Your task to perform on an android device: Show me productivity apps on the Play Store Image 0: 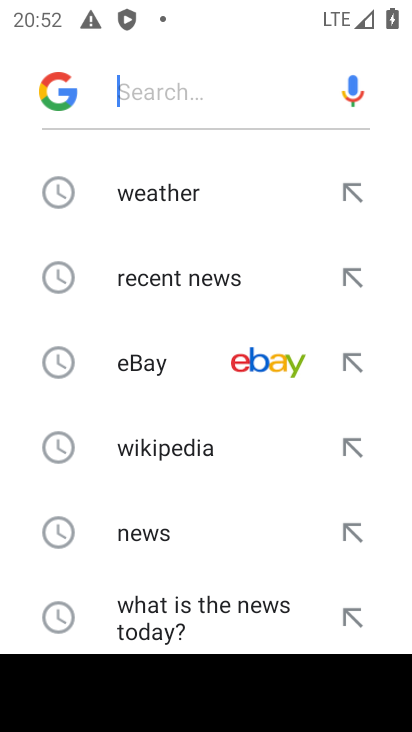
Step 0: press back button
Your task to perform on an android device: Show me productivity apps on the Play Store Image 1: 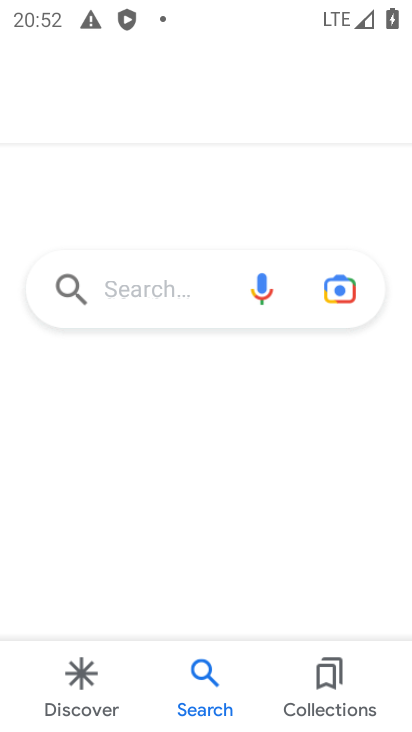
Step 1: press back button
Your task to perform on an android device: Show me productivity apps on the Play Store Image 2: 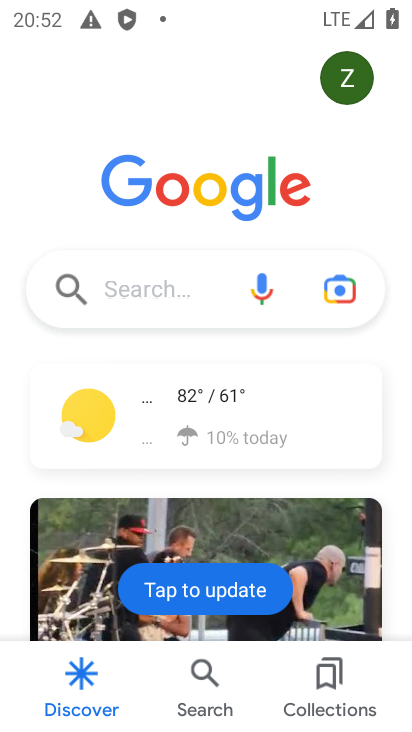
Step 2: press home button
Your task to perform on an android device: Show me productivity apps on the Play Store Image 3: 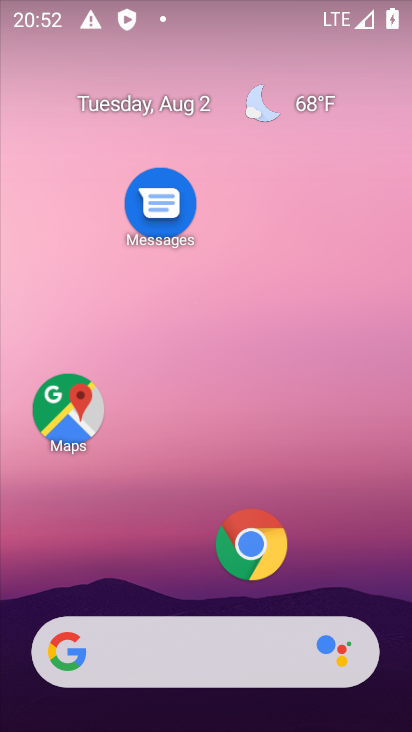
Step 3: drag from (175, 563) to (215, 120)
Your task to perform on an android device: Show me productivity apps on the Play Store Image 4: 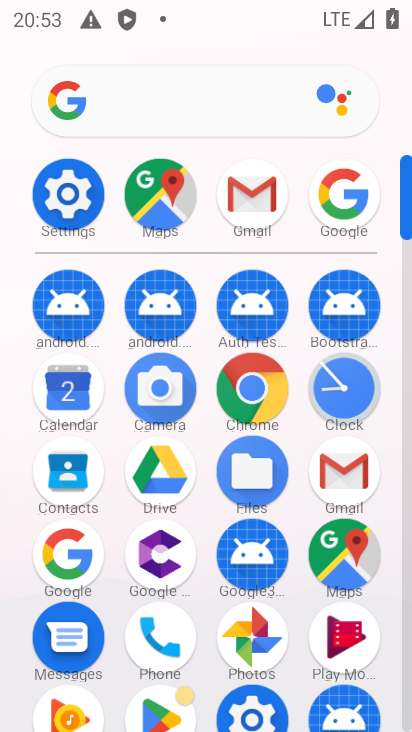
Step 4: drag from (129, 637) to (153, 375)
Your task to perform on an android device: Show me productivity apps on the Play Store Image 5: 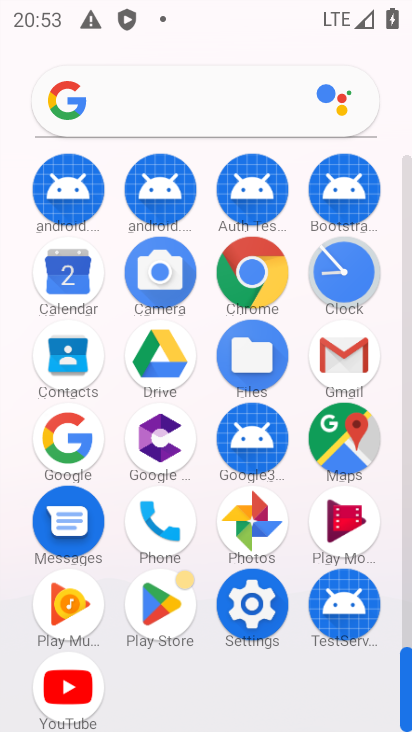
Step 5: click (157, 614)
Your task to perform on an android device: Show me productivity apps on the Play Store Image 6: 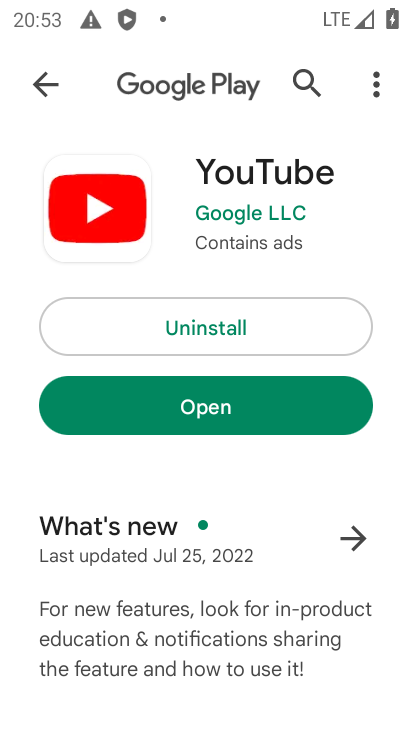
Step 6: click (48, 78)
Your task to perform on an android device: Show me productivity apps on the Play Store Image 7: 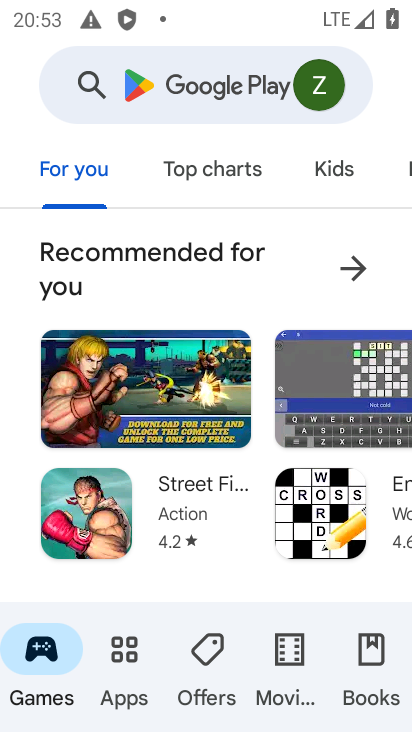
Step 7: click (114, 662)
Your task to perform on an android device: Show me productivity apps on the Play Store Image 8: 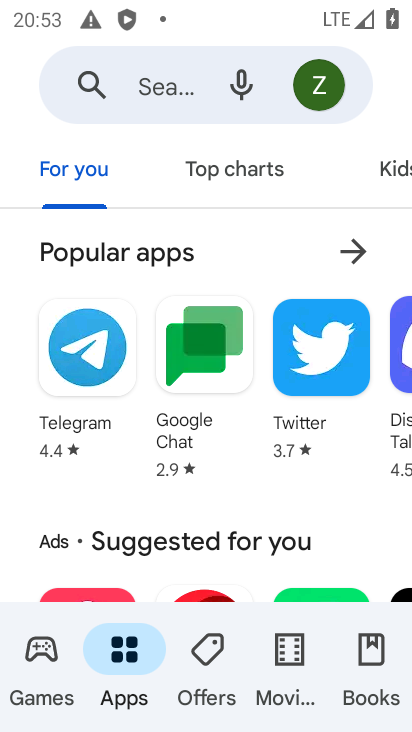
Step 8: drag from (341, 167) to (82, 159)
Your task to perform on an android device: Show me productivity apps on the Play Store Image 9: 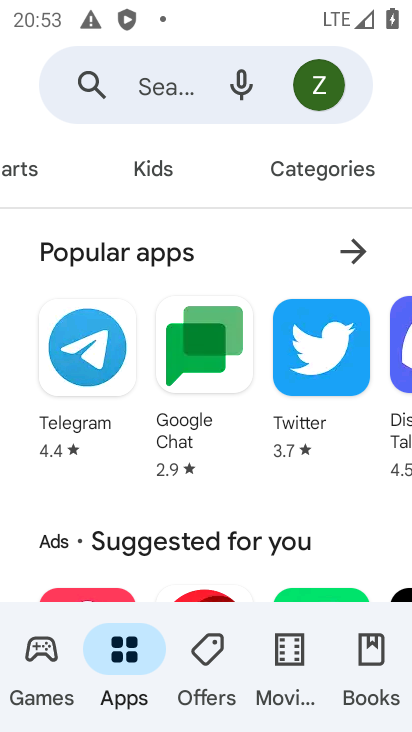
Step 9: click (320, 166)
Your task to perform on an android device: Show me productivity apps on the Play Store Image 10: 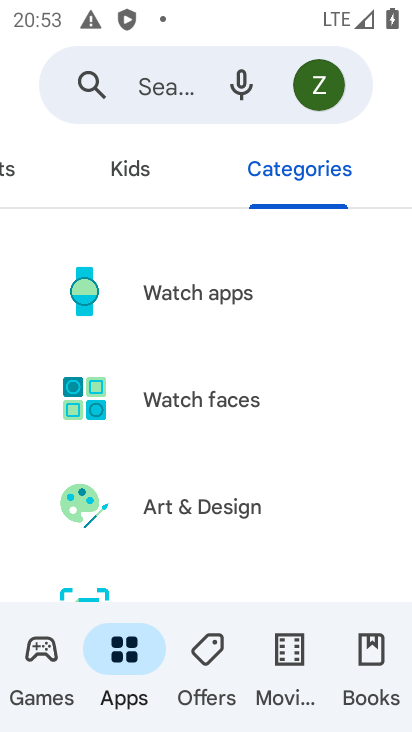
Step 10: drag from (209, 506) to (227, 331)
Your task to perform on an android device: Show me productivity apps on the Play Store Image 11: 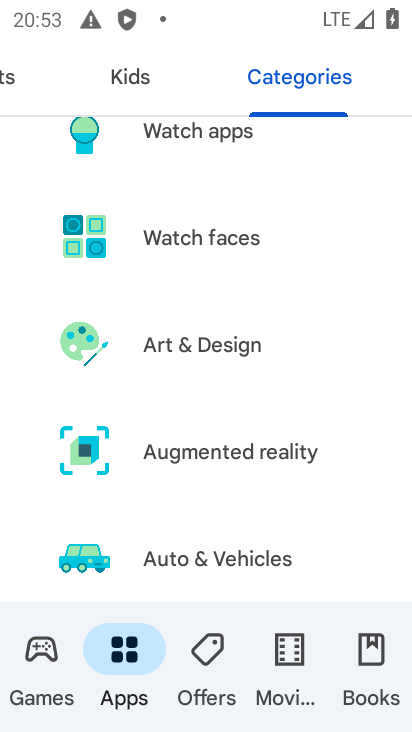
Step 11: drag from (251, 527) to (289, 161)
Your task to perform on an android device: Show me productivity apps on the Play Store Image 12: 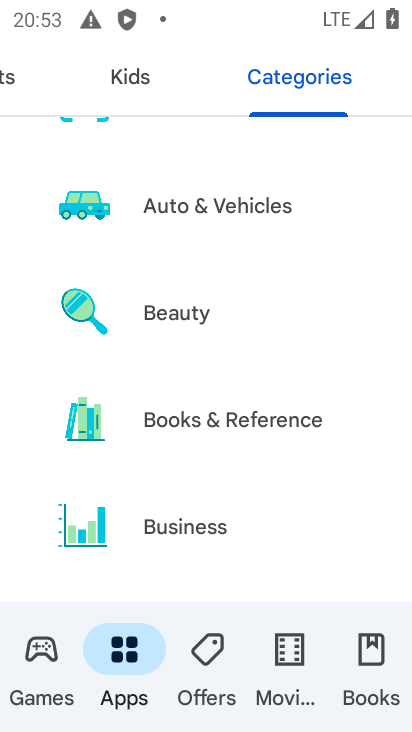
Step 12: drag from (293, 486) to (290, 127)
Your task to perform on an android device: Show me productivity apps on the Play Store Image 13: 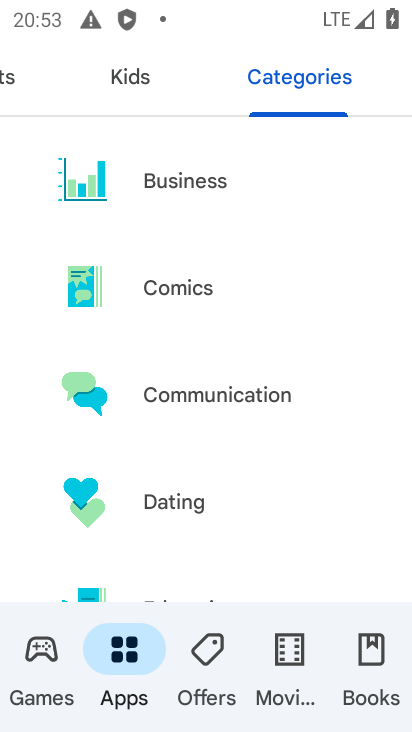
Step 13: drag from (284, 503) to (238, 115)
Your task to perform on an android device: Show me productivity apps on the Play Store Image 14: 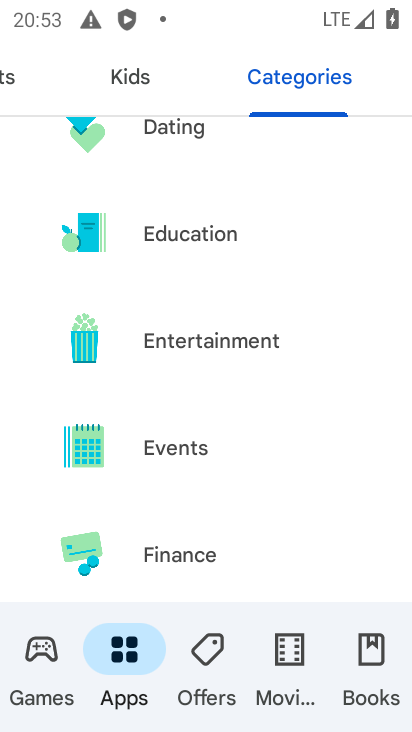
Step 14: drag from (265, 581) to (247, 198)
Your task to perform on an android device: Show me productivity apps on the Play Store Image 15: 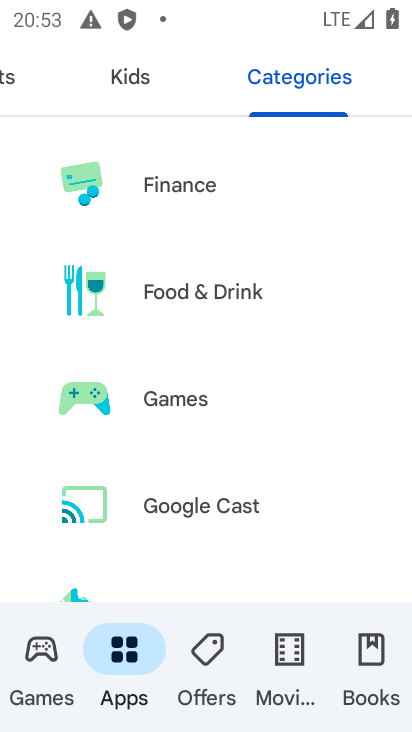
Step 15: drag from (260, 573) to (296, 146)
Your task to perform on an android device: Show me productivity apps on the Play Store Image 16: 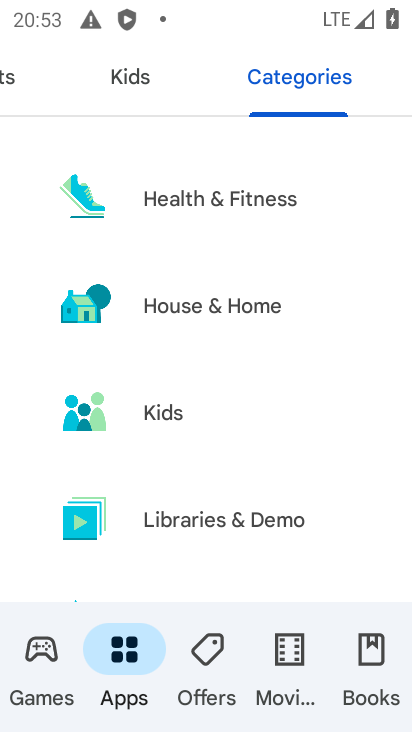
Step 16: drag from (283, 515) to (283, 139)
Your task to perform on an android device: Show me productivity apps on the Play Store Image 17: 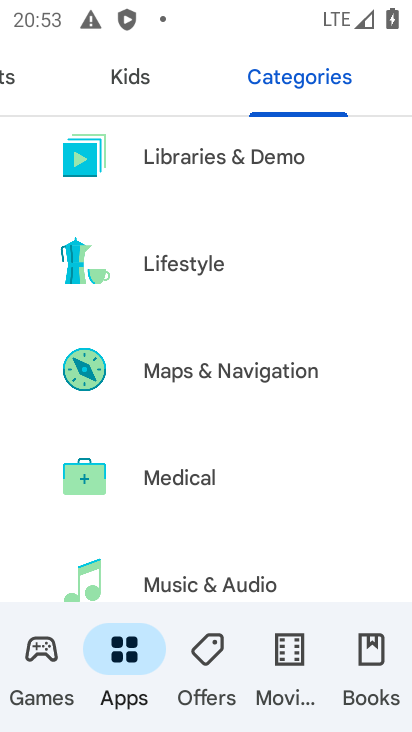
Step 17: drag from (252, 518) to (273, 95)
Your task to perform on an android device: Show me productivity apps on the Play Store Image 18: 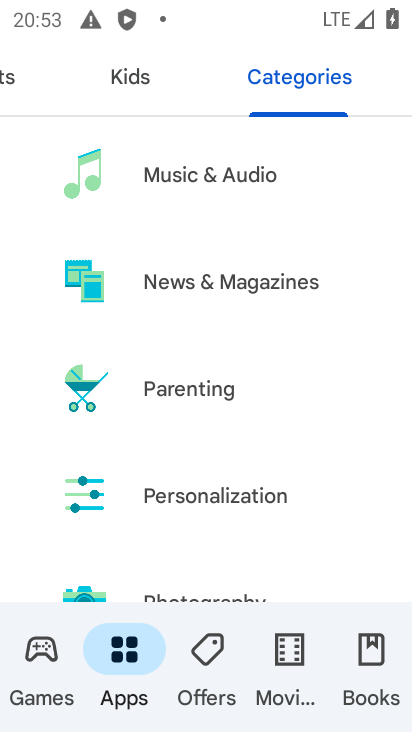
Step 18: drag from (254, 485) to (281, 164)
Your task to perform on an android device: Show me productivity apps on the Play Store Image 19: 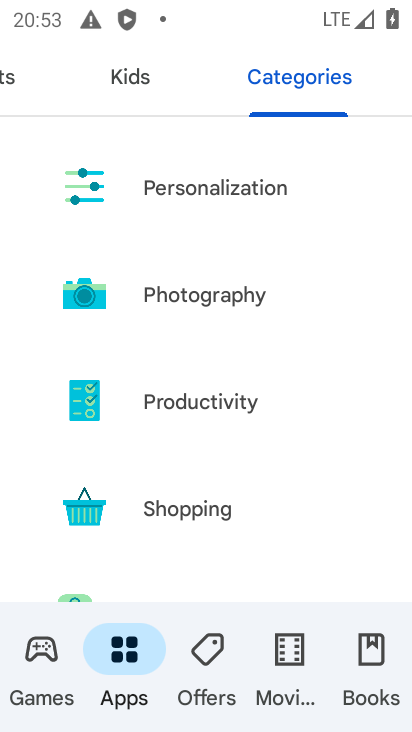
Step 19: click (243, 411)
Your task to perform on an android device: Show me productivity apps on the Play Store Image 20: 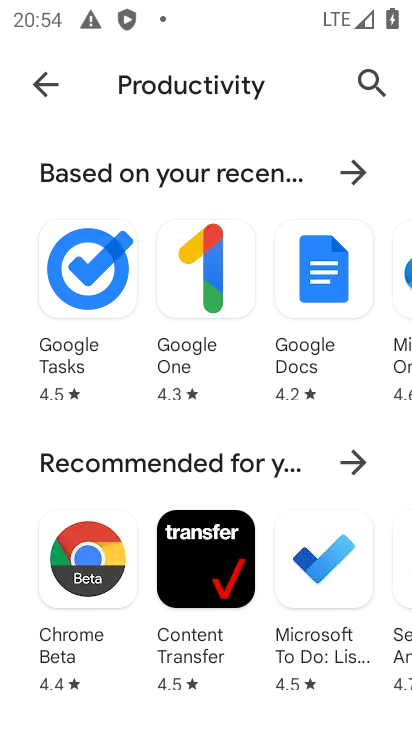
Step 20: task complete